Your task to perform on an android device: Clear all items from cart on newegg.com. Image 0: 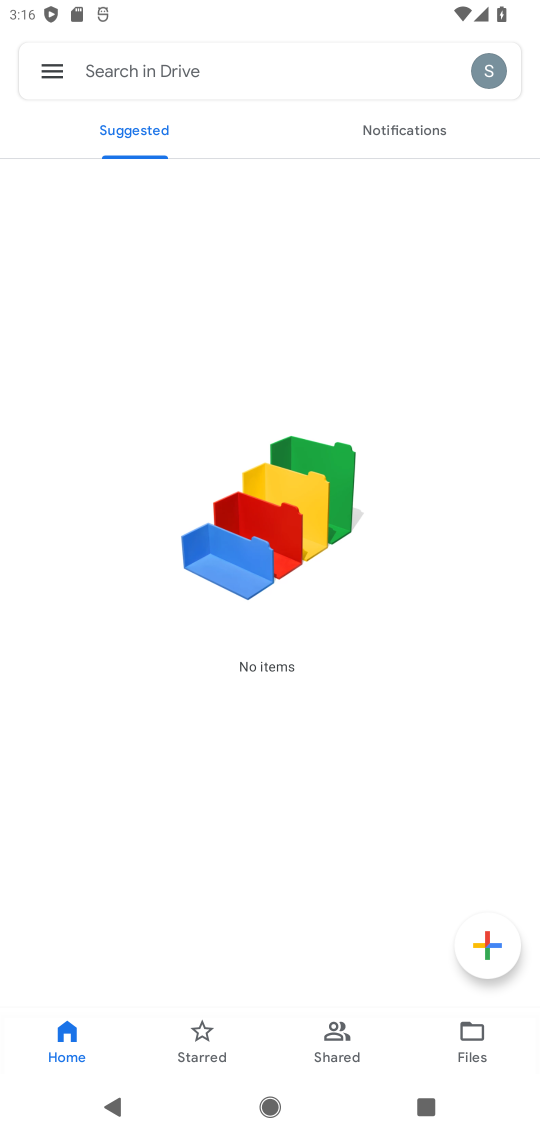
Step 0: press home button
Your task to perform on an android device: Clear all items from cart on newegg.com. Image 1: 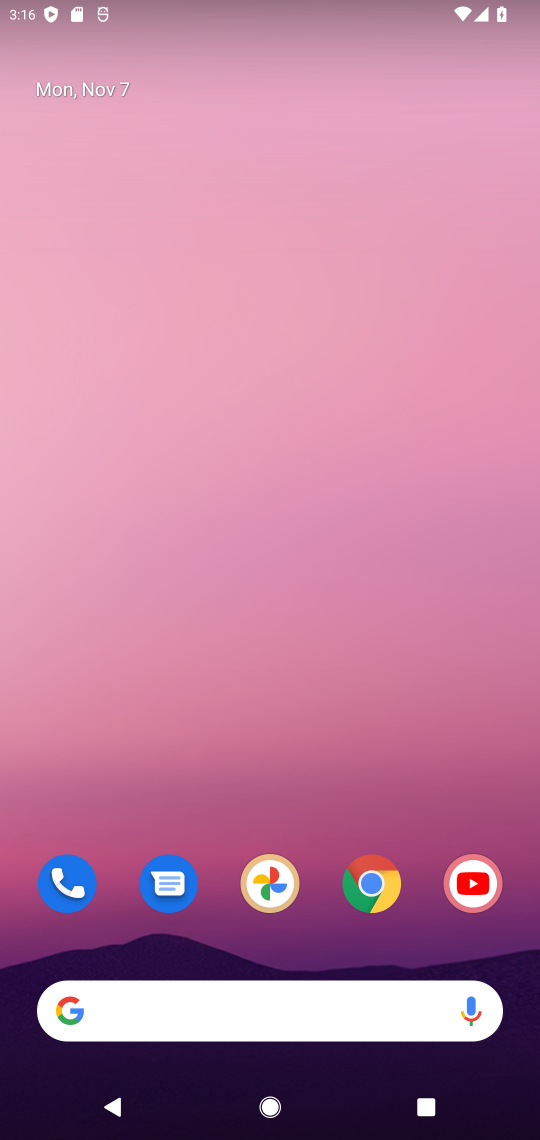
Step 1: click (370, 872)
Your task to perform on an android device: Clear all items from cart on newegg.com. Image 2: 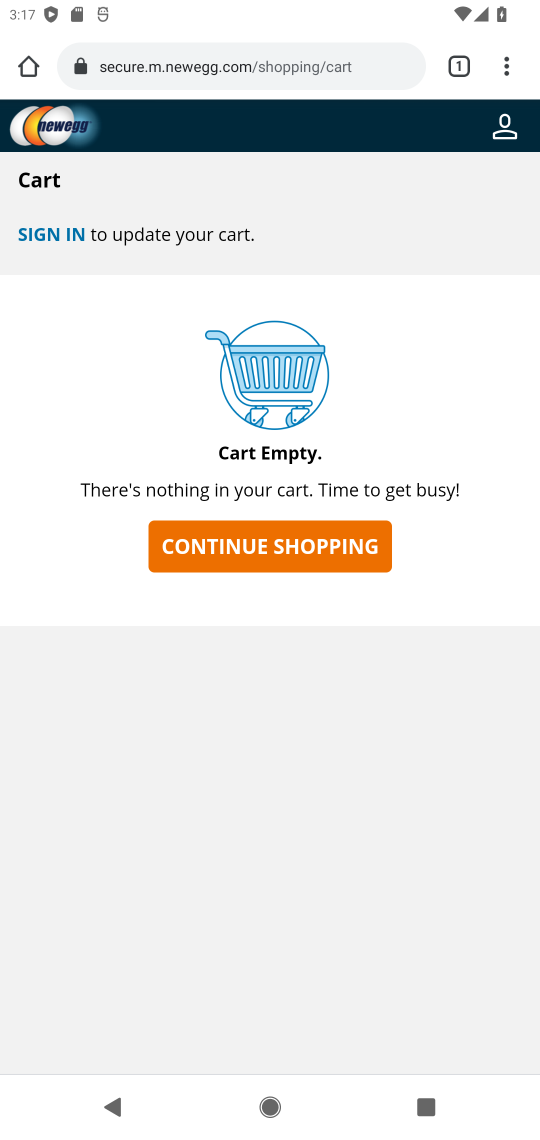
Step 2: task complete